Your task to perform on an android device: Open location settings Image 0: 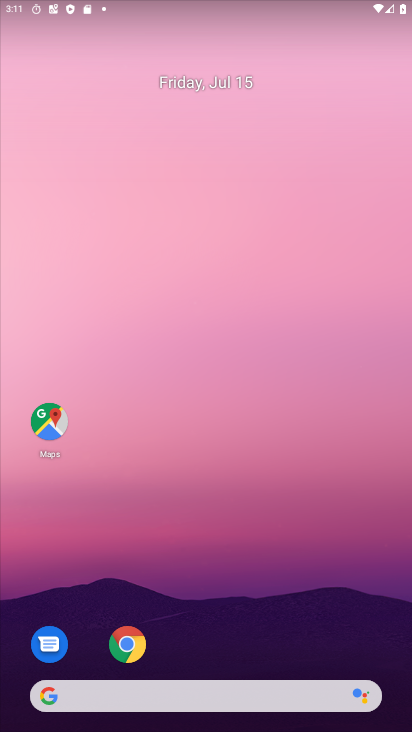
Step 0: drag from (232, 646) to (329, 30)
Your task to perform on an android device: Open location settings Image 1: 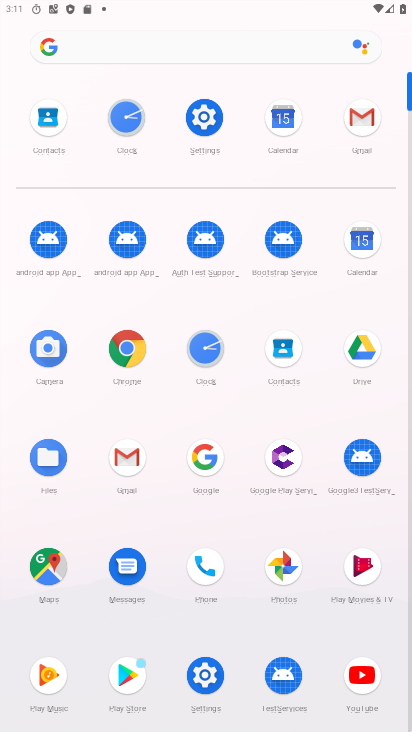
Step 1: click (203, 130)
Your task to perform on an android device: Open location settings Image 2: 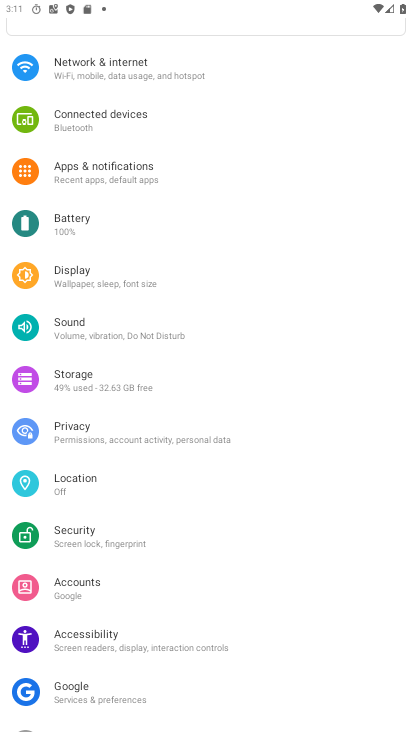
Step 2: click (96, 476)
Your task to perform on an android device: Open location settings Image 3: 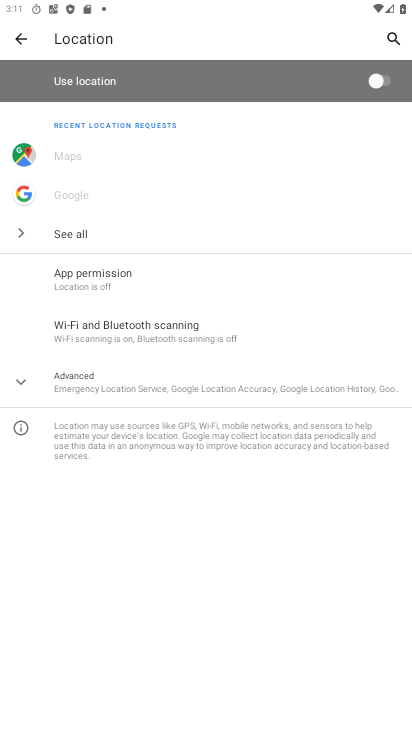
Step 3: task complete